Your task to perform on an android device: Go to eBay Image 0: 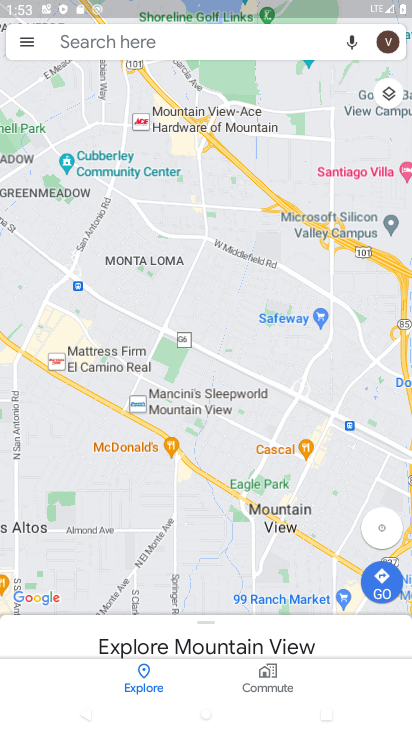
Step 0: press home button
Your task to perform on an android device: Go to eBay Image 1: 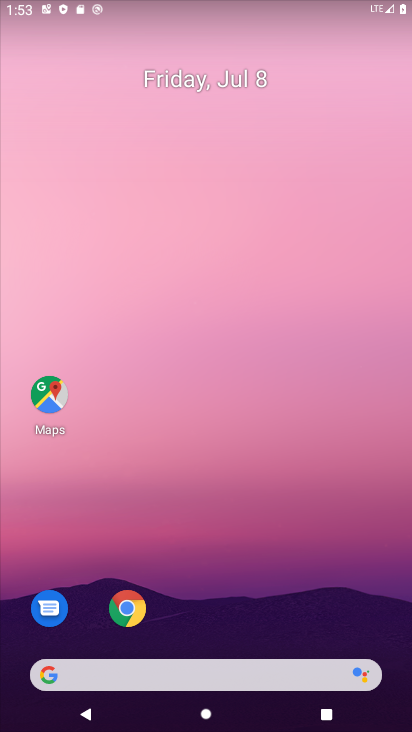
Step 1: click (133, 609)
Your task to perform on an android device: Go to eBay Image 2: 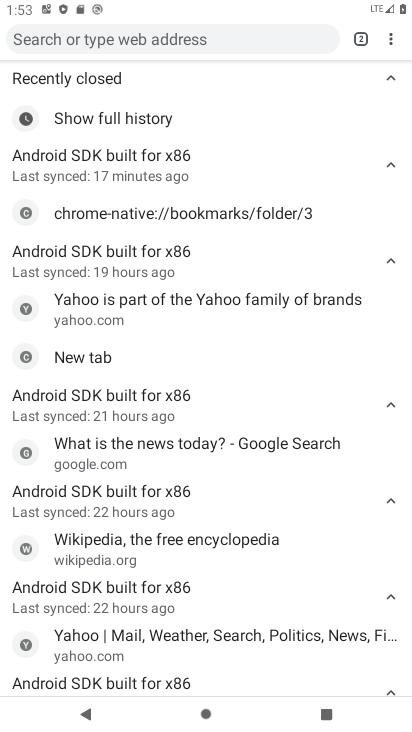
Step 2: click (134, 37)
Your task to perform on an android device: Go to eBay Image 3: 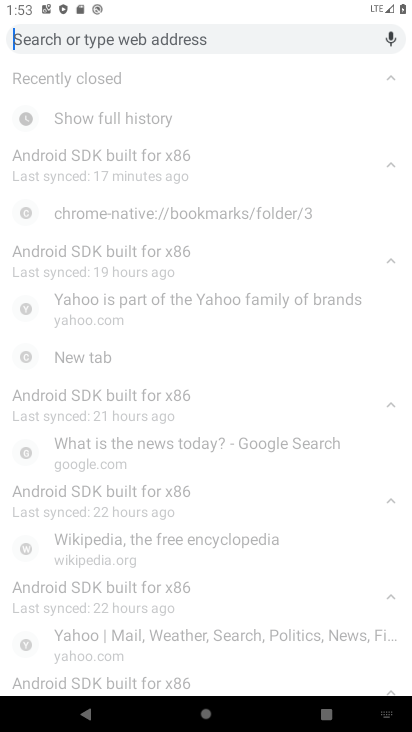
Step 3: type "eBay"
Your task to perform on an android device: Go to eBay Image 4: 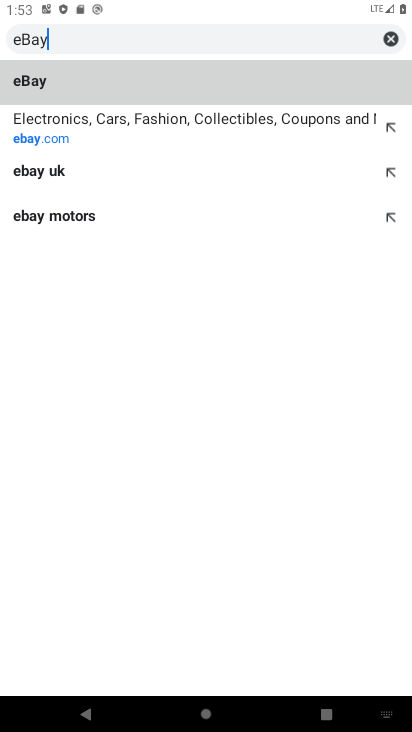
Step 4: click (68, 85)
Your task to perform on an android device: Go to eBay Image 5: 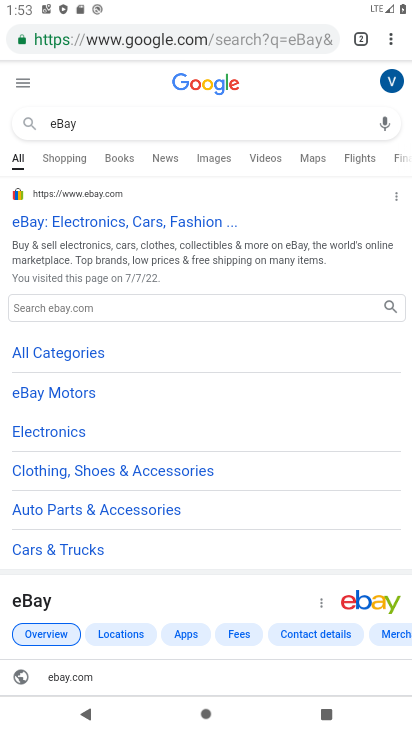
Step 5: click (82, 226)
Your task to perform on an android device: Go to eBay Image 6: 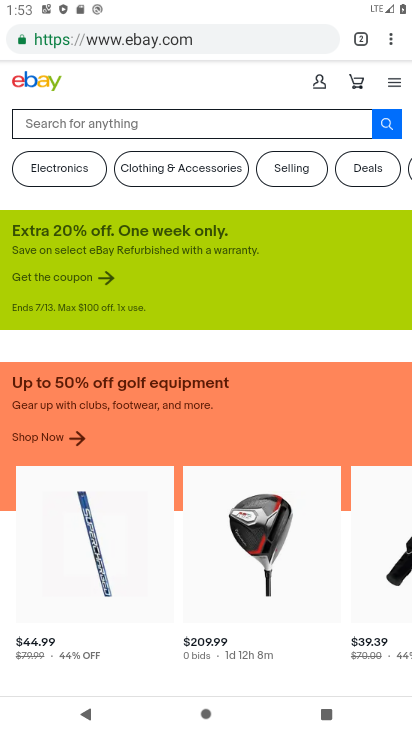
Step 6: task complete